Your task to perform on an android device: turn notification dots on Image 0: 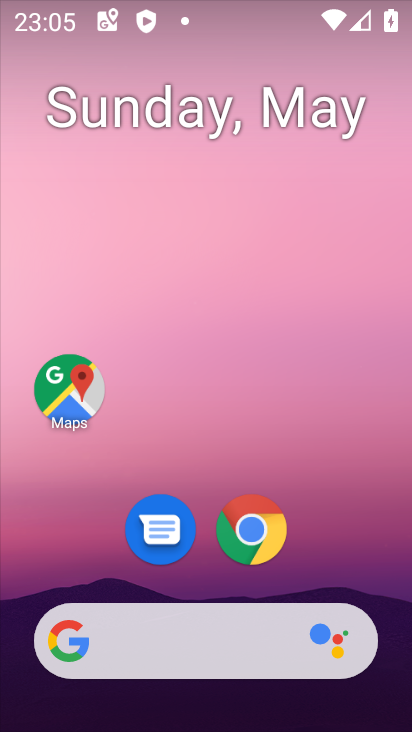
Step 0: click (277, 548)
Your task to perform on an android device: turn notification dots on Image 1: 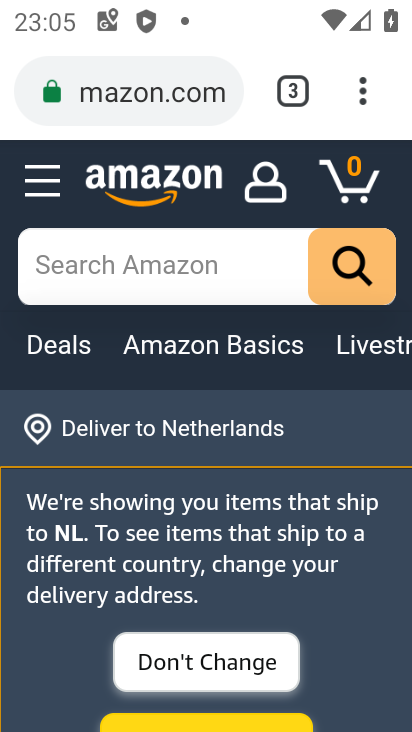
Step 1: click (360, 77)
Your task to perform on an android device: turn notification dots on Image 2: 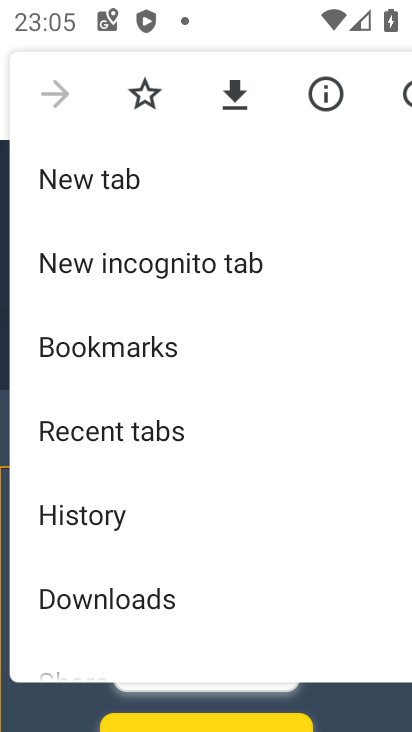
Step 2: drag from (181, 569) to (172, 296)
Your task to perform on an android device: turn notification dots on Image 3: 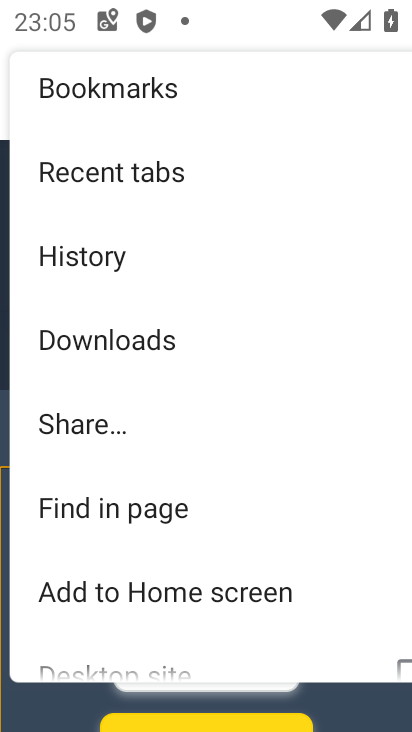
Step 3: drag from (125, 634) to (125, 460)
Your task to perform on an android device: turn notification dots on Image 4: 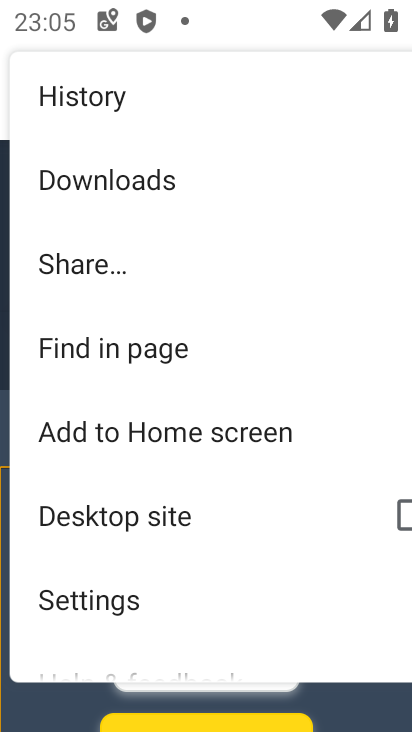
Step 4: press home button
Your task to perform on an android device: turn notification dots on Image 5: 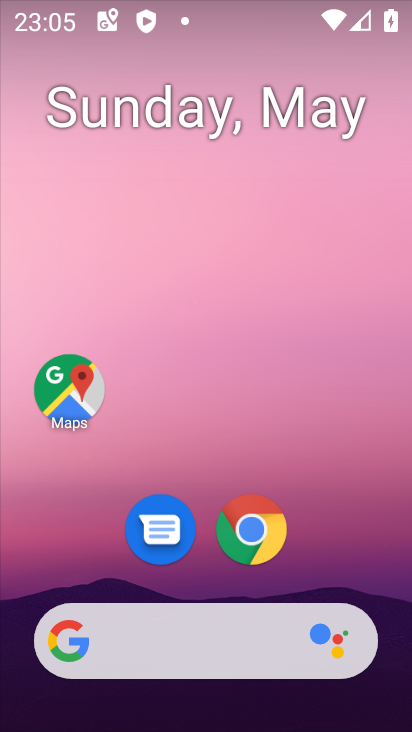
Step 5: drag from (381, 569) to (360, 25)
Your task to perform on an android device: turn notification dots on Image 6: 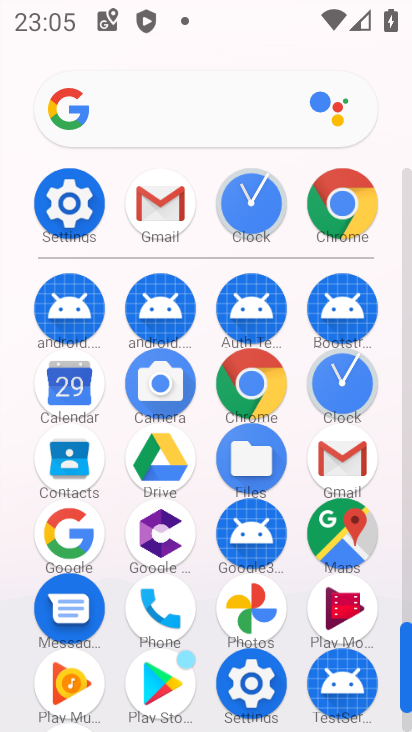
Step 6: click (69, 241)
Your task to perform on an android device: turn notification dots on Image 7: 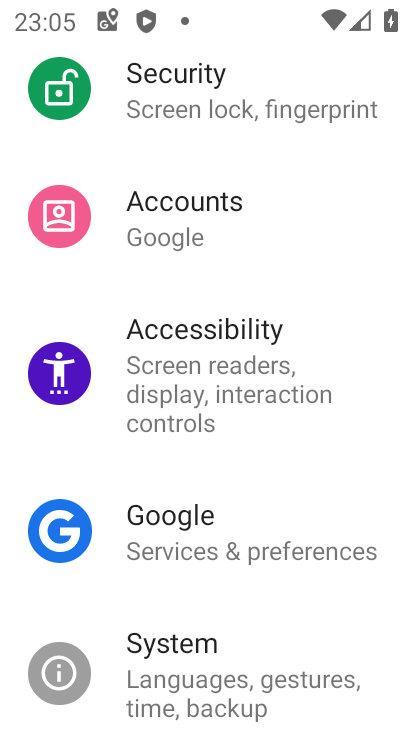
Step 7: task complete